Your task to perform on an android device: Open accessibility settings Image 0: 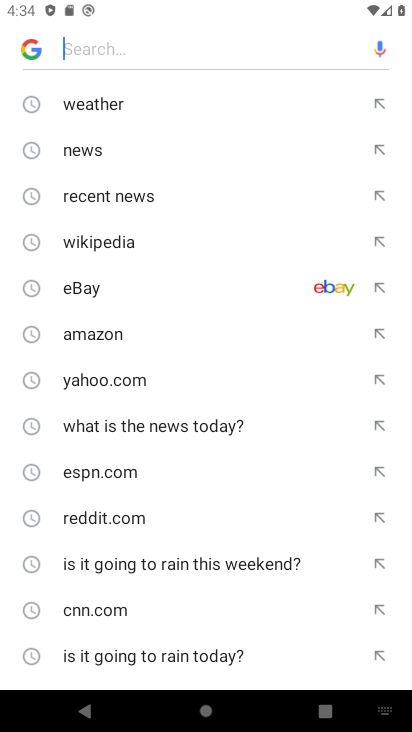
Step 0: press home button
Your task to perform on an android device: Open accessibility settings Image 1: 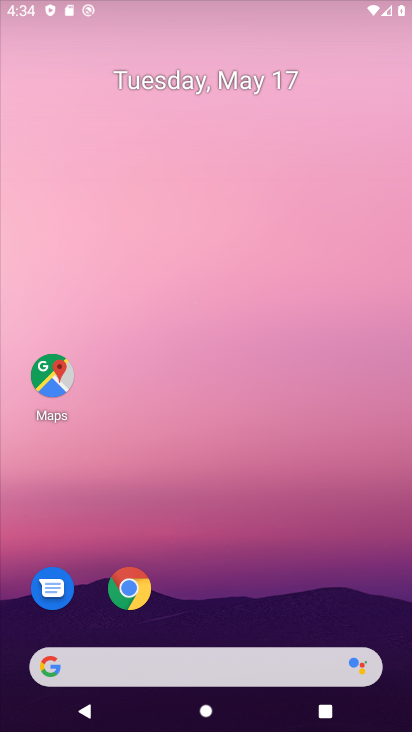
Step 1: drag from (242, 571) to (282, 140)
Your task to perform on an android device: Open accessibility settings Image 2: 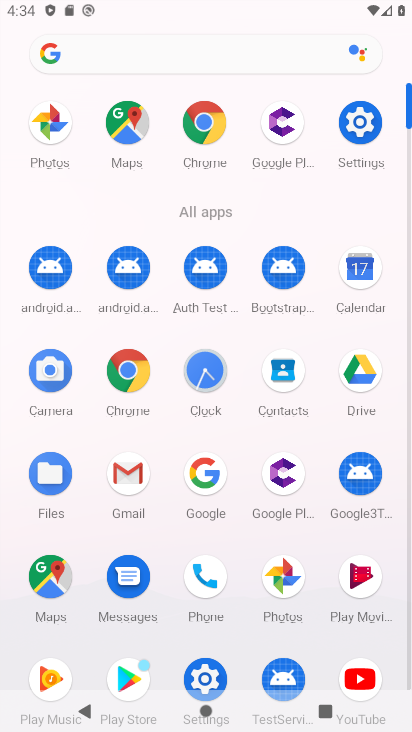
Step 2: click (362, 127)
Your task to perform on an android device: Open accessibility settings Image 3: 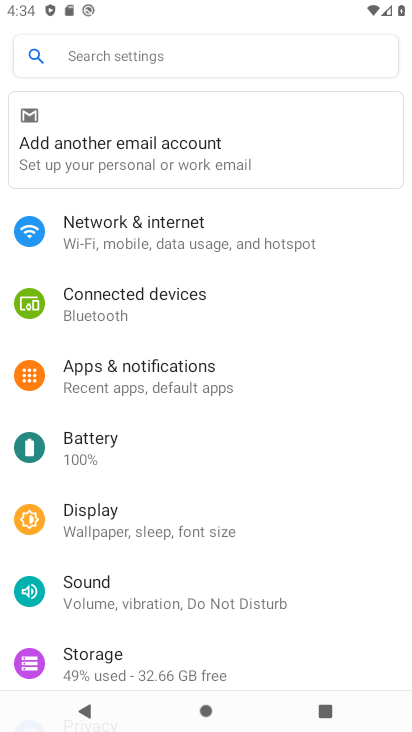
Step 3: drag from (224, 631) to (233, 221)
Your task to perform on an android device: Open accessibility settings Image 4: 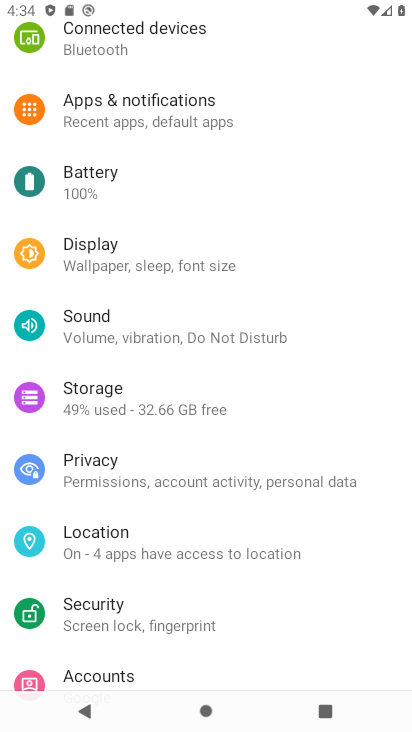
Step 4: drag from (221, 610) to (261, 221)
Your task to perform on an android device: Open accessibility settings Image 5: 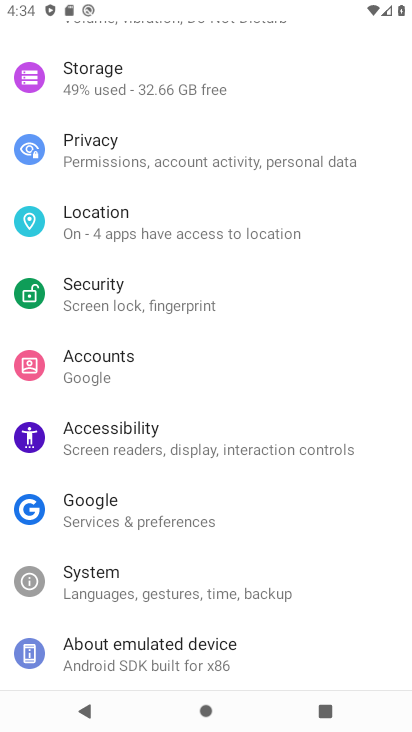
Step 5: click (248, 445)
Your task to perform on an android device: Open accessibility settings Image 6: 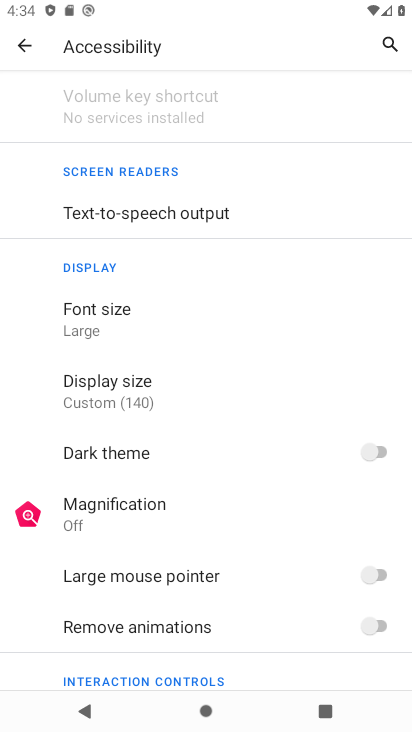
Step 6: task complete